Your task to perform on an android device: read, delete, or share a saved page in the chrome app Image 0: 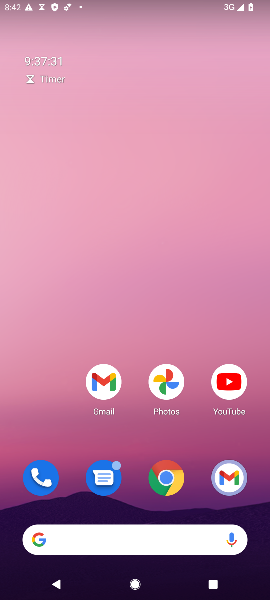
Step 0: drag from (201, 338) to (158, 45)
Your task to perform on an android device: read, delete, or share a saved page in the chrome app Image 1: 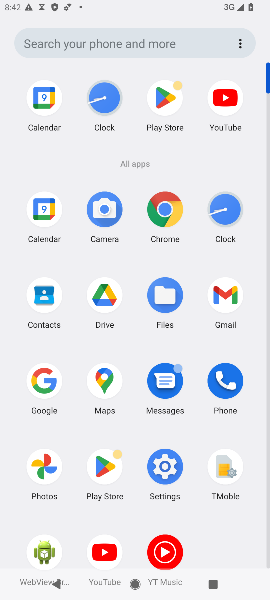
Step 1: click (168, 222)
Your task to perform on an android device: read, delete, or share a saved page in the chrome app Image 2: 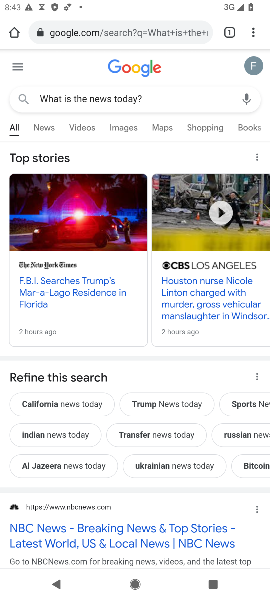
Step 2: click (251, 32)
Your task to perform on an android device: read, delete, or share a saved page in the chrome app Image 3: 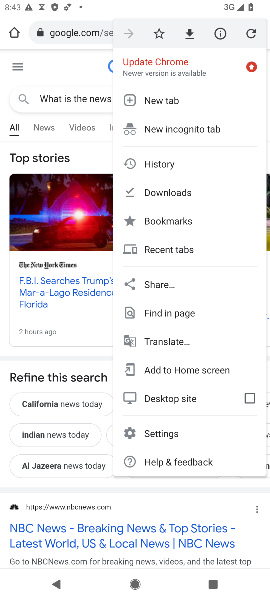
Step 3: click (176, 202)
Your task to perform on an android device: read, delete, or share a saved page in the chrome app Image 4: 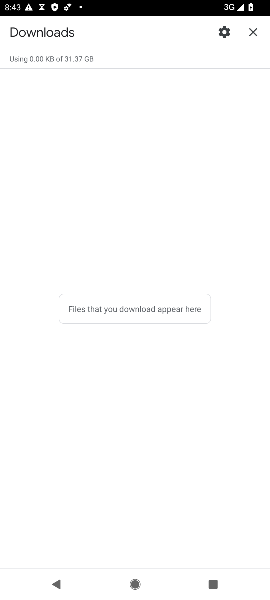
Step 4: task complete